Your task to perform on an android device: turn on the 24-hour format for clock Image 0: 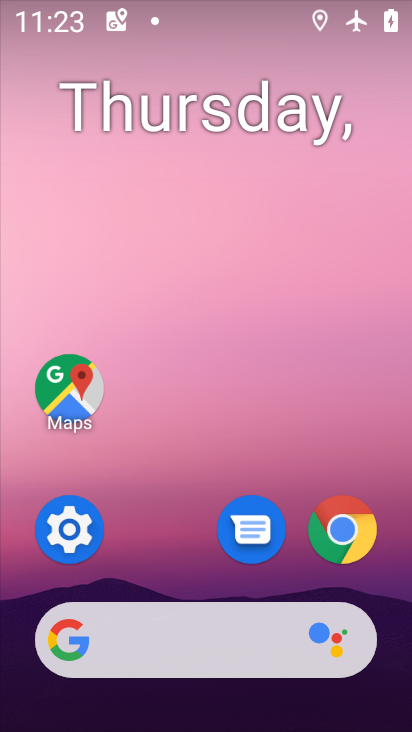
Step 0: drag from (210, 623) to (201, 243)
Your task to perform on an android device: turn on the 24-hour format for clock Image 1: 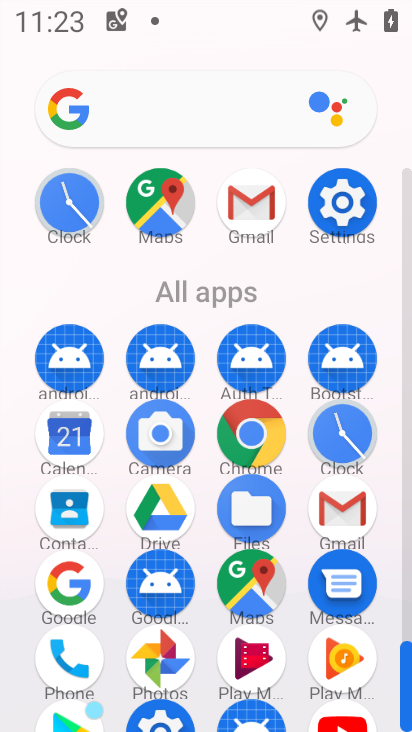
Step 1: click (355, 424)
Your task to perform on an android device: turn on the 24-hour format for clock Image 2: 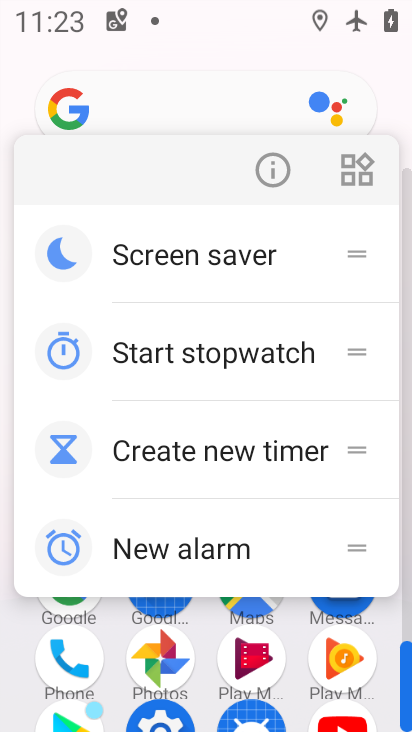
Step 2: click (210, 620)
Your task to perform on an android device: turn on the 24-hour format for clock Image 3: 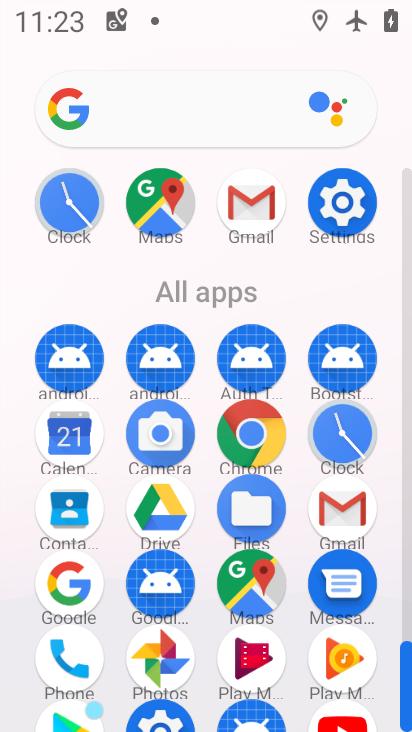
Step 3: click (350, 438)
Your task to perform on an android device: turn on the 24-hour format for clock Image 4: 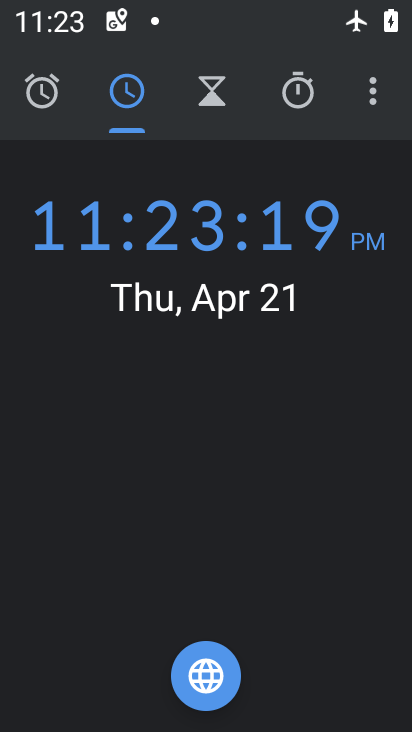
Step 4: click (358, 98)
Your task to perform on an android device: turn on the 24-hour format for clock Image 5: 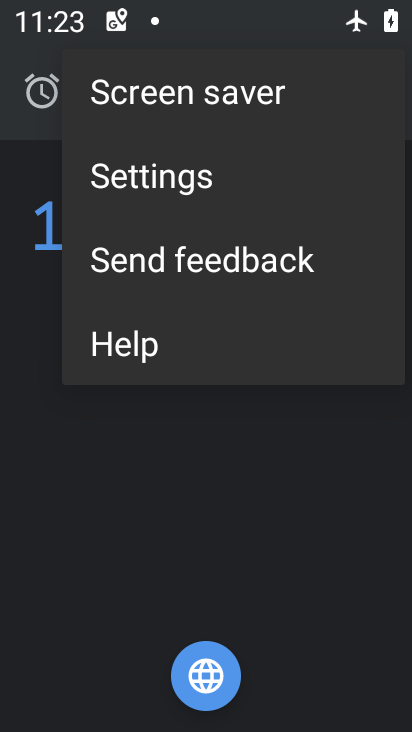
Step 5: click (201, 195)
Your task to perform on an android device: turn on the 24-hour format for clock Image 6: 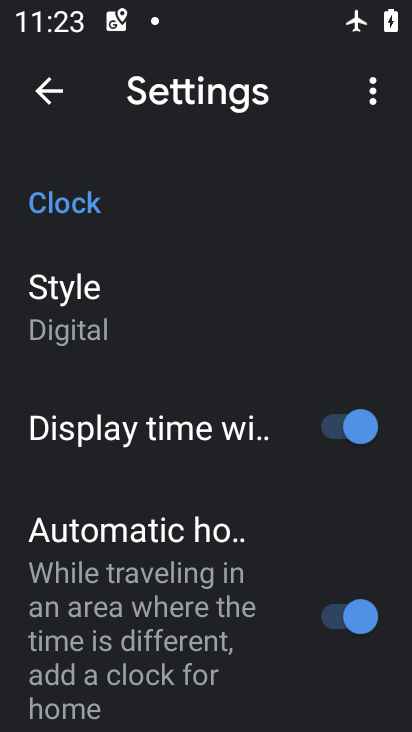
Step 6: drag from (230, 544) to (194, 143)
Your task to perform on an android device: turn on the 24-hour format for clock Image 7: 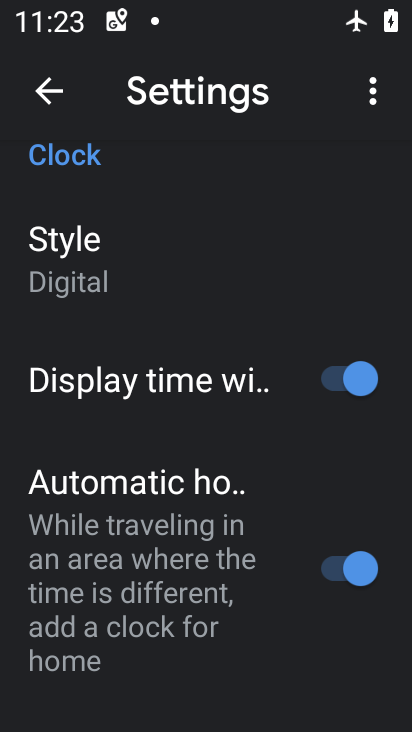
Step 7: drag from (221, 573) to (135, 149)
Your task to perform on an android device: turn on the 24-hour format for clock Image 8: 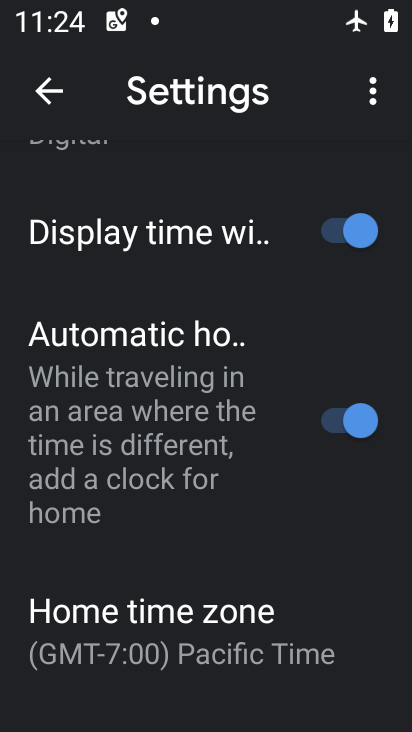
Step 8: drag from (306, 578) to (141, 12)
Your task to perform on an android device: turn on the 24-hour format for clock Image 9: 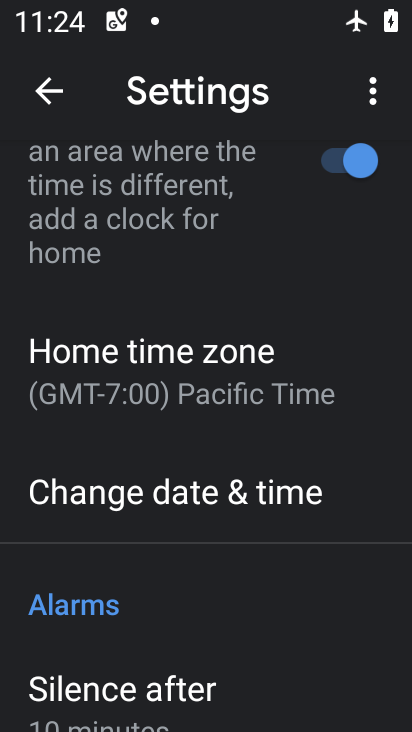
Step 9: click (285, 502)
Your task to perform on an android device: turn on the 24-hour format for clock Image 10: 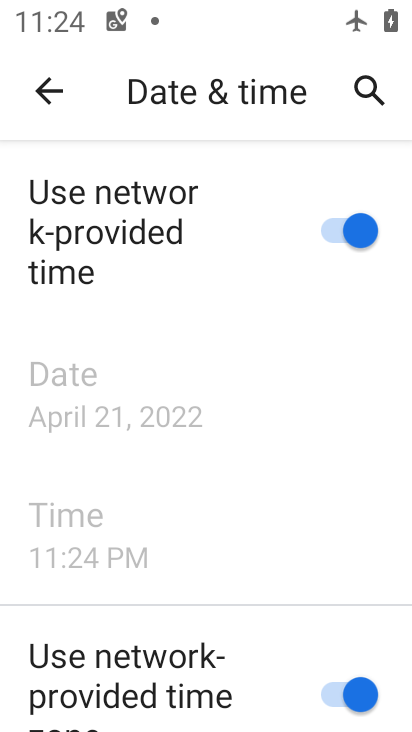
Step 10: drag from (295, 612) to (205, 139)
Your task to perform on an android device: turn on the 24-hour format for clock Image 11: 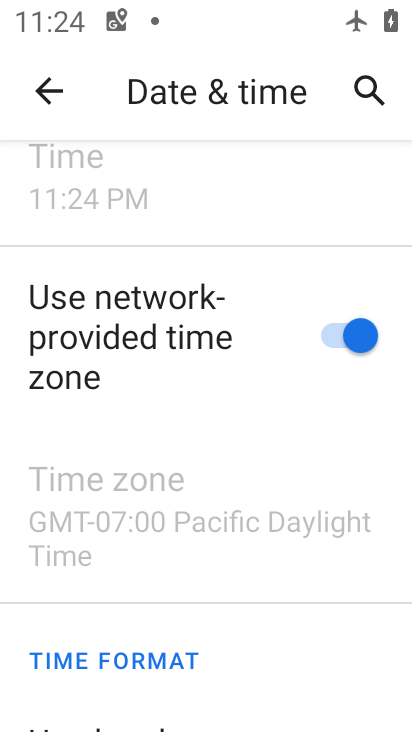
Step 11: drag from (329, 599) to (206, 81)
Your task to perform on an android device: turn on the 24-hour format for clock Image 12: 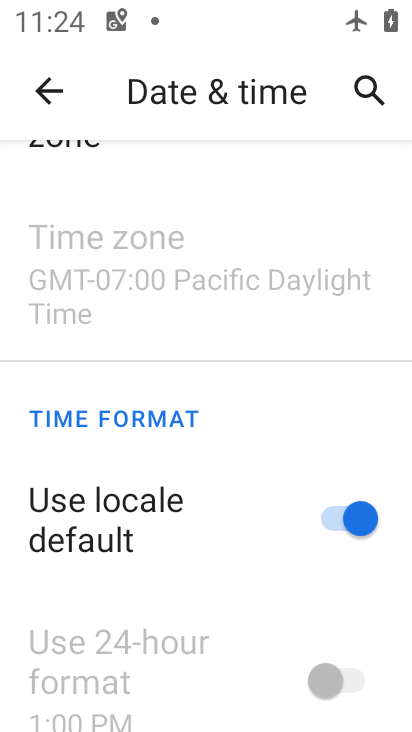
Step 12: drag from (256, 589) to (166, 117)
Your task to perform on an android device: turn on the 24-hour format for clock Image 13: 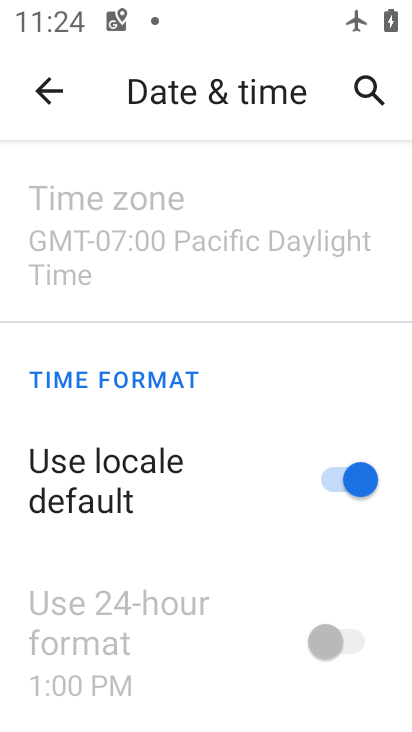
Step 13: click (354, 483)
Your task to perform on an android device: turn on the 24-hour format for clock Image 14: 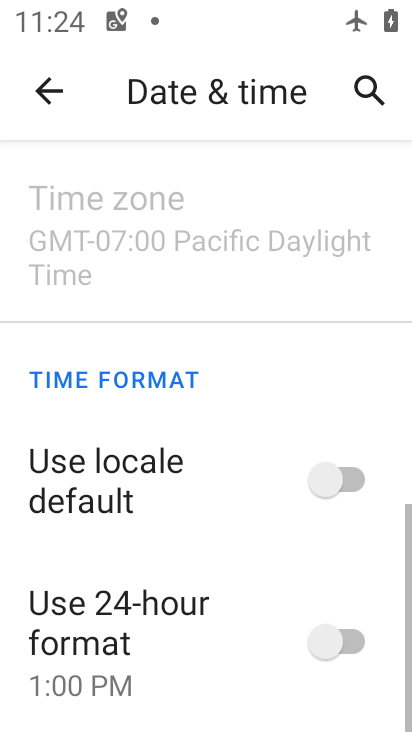
Step 14: click (337, 636)
Your task to perform on an android device: turn on the 24-hour format for clock Image 15: 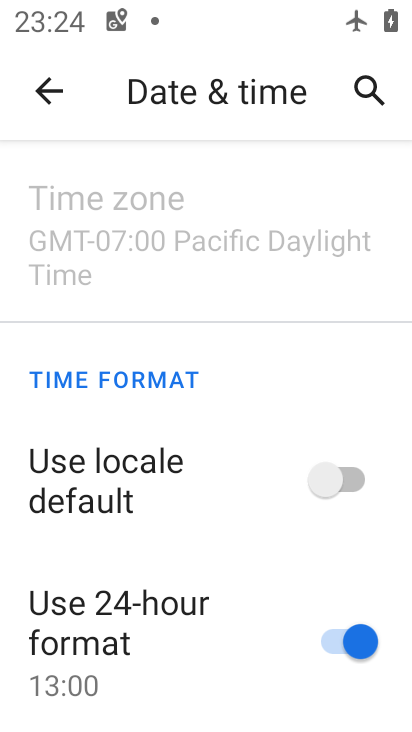
Step 15: task complete